Your task to perform on an android device: Open Reddit.com Image 0: 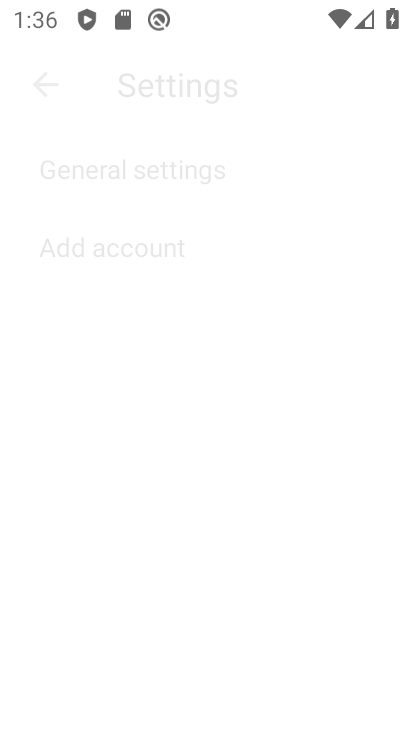
Step 0: drag from (211, 611) to (205, 179)
Your task to perform on an android device: Open Reddit.com Image 1: 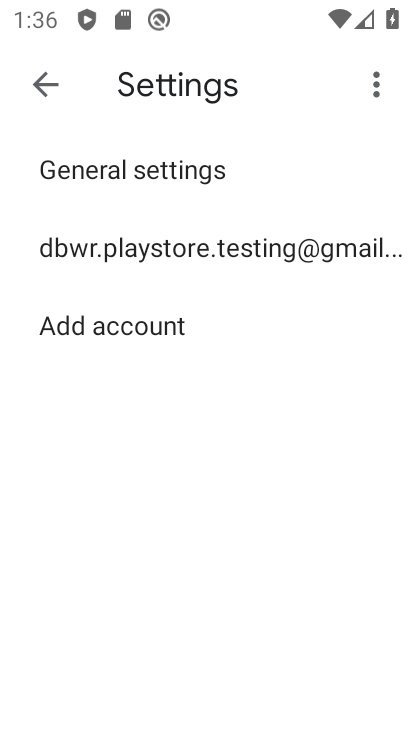
Step 1: press home button
Your task to perform on an android device: Open Reddit.com Image 2: 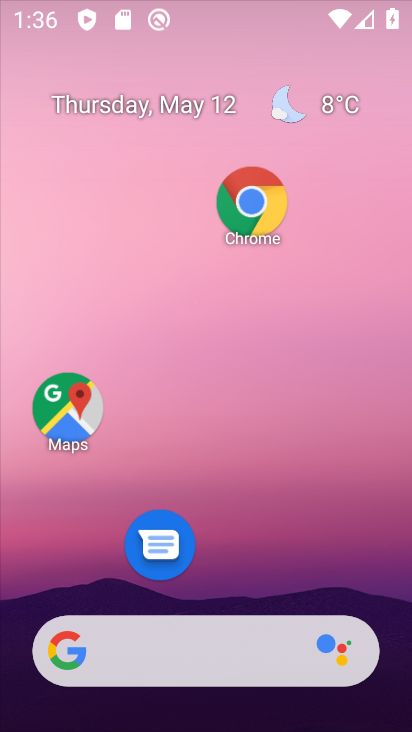
Step 2: drag from (204, 597) to (198, 235)
Your task to perform on an android device: Open Reddit.com Image 3: 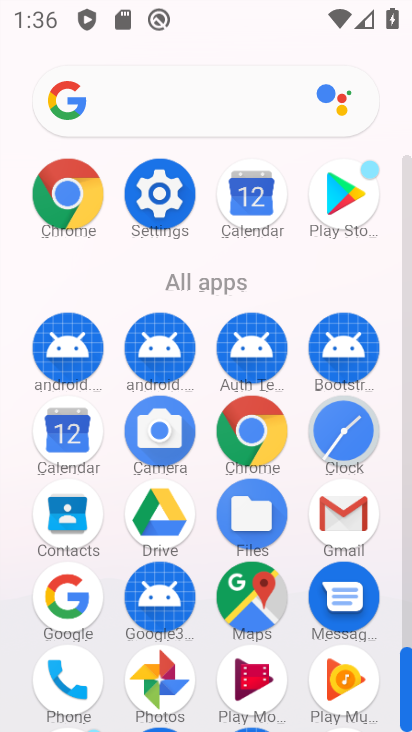
Step 3: click (206, 113)
Your task to perform on an android device: Open Reddit.com Image 4: 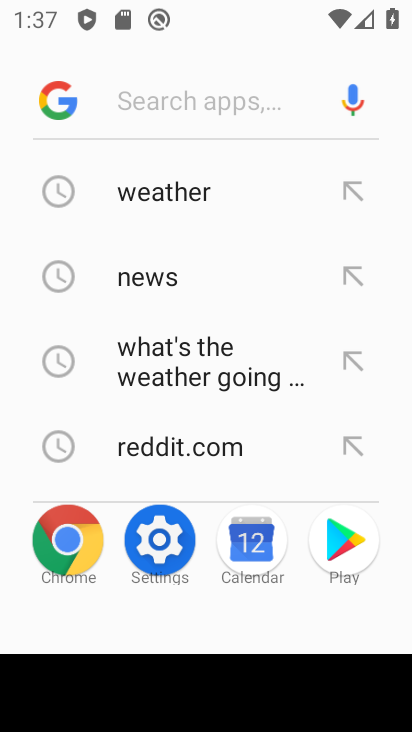
Step 4: click (183, 429)
Your task to perform on an android device: Open Reddit.com Image 5: 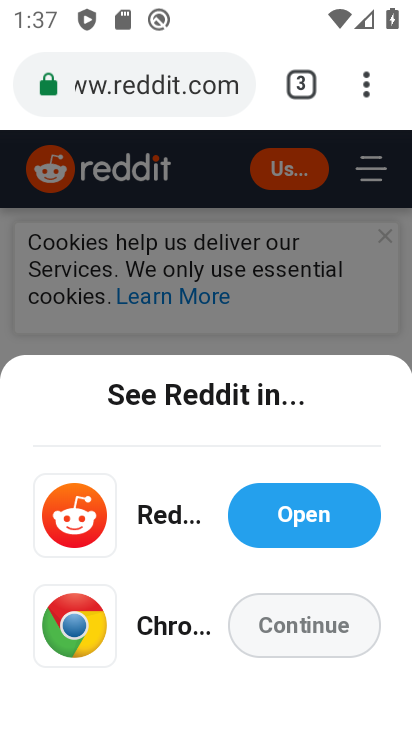
Step 5: task complete